Your task to perform on an android device: Clear all items from cart on costco.com. Search for "usb-c" on costco.com, select the first entry, add it to the cart, then select checkout. Image 0: 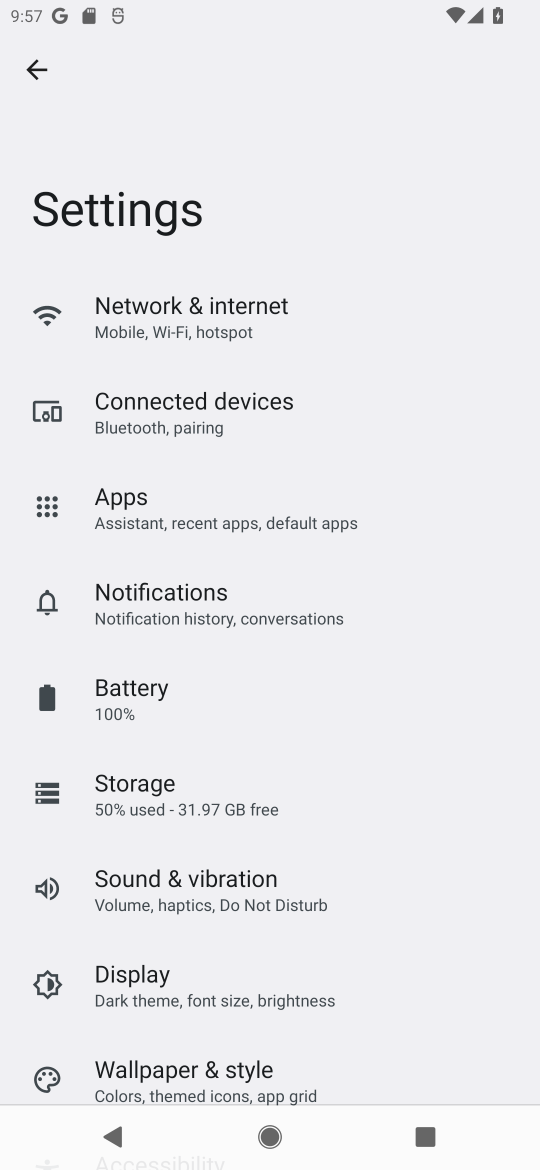
Step 0: press home button
Your task to perform on an android device: Clear all items from cart on costco.com. Search for "usb-c" on costco.com, select the first entry, add it to the cart, then select checkout. Image 1: 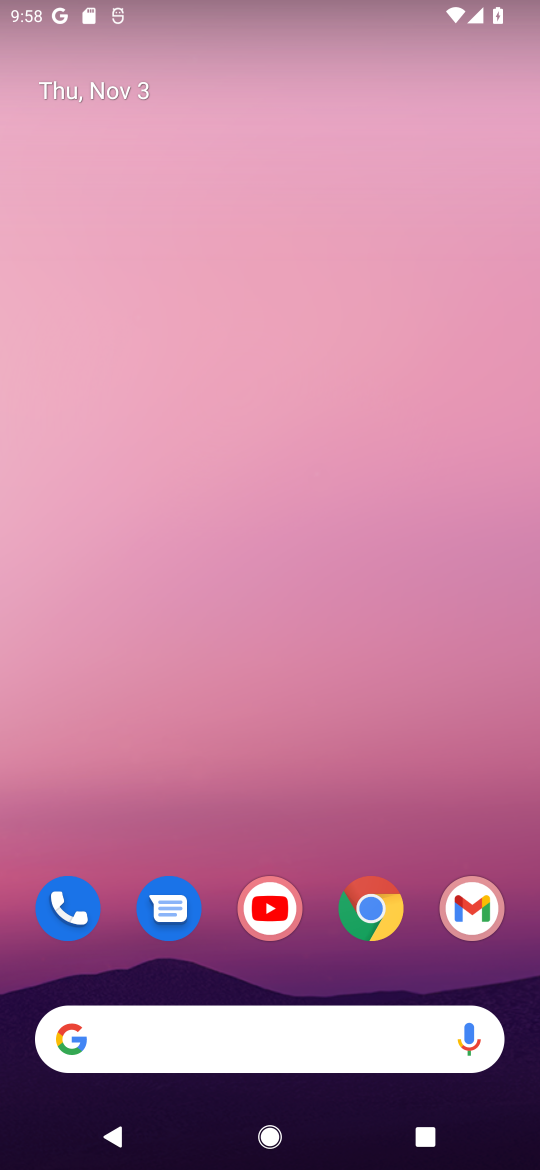
Step 1: click (377, 907)
Your task to perform on an android device: Clear all items from cart on costco.com. Search for "usb-c" on costco.com, select the first entry, add it to the cart, then select checkout. Image 2: 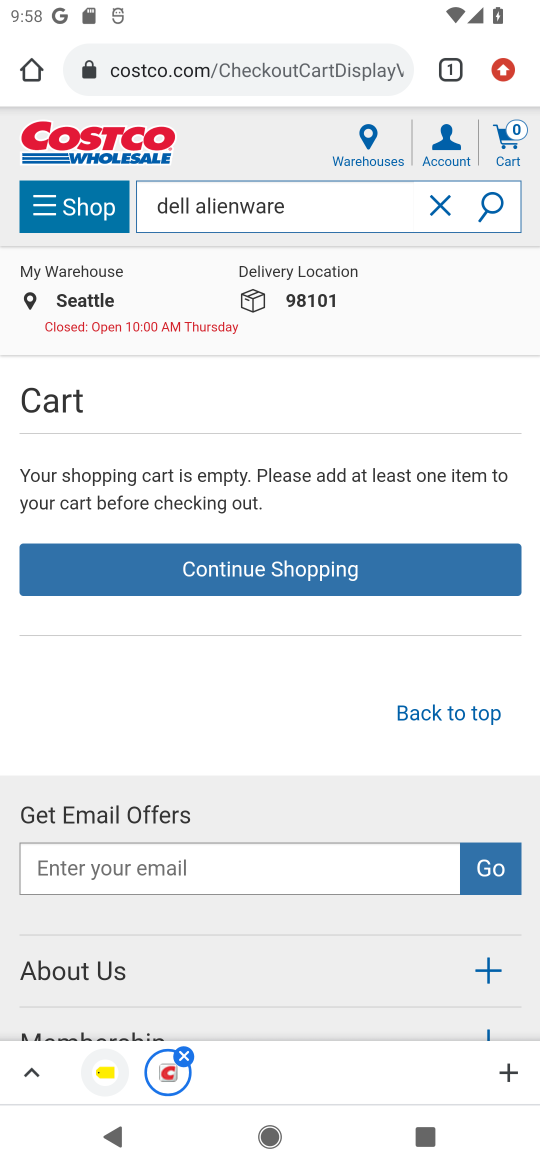
Step 2: click (433, 202)
Your task to perform on an android device: Clear all items from cart on costco.com. Search for "usb-c" on costco.com, select the first entry, add it to the cart, then select checkout. Image 3: 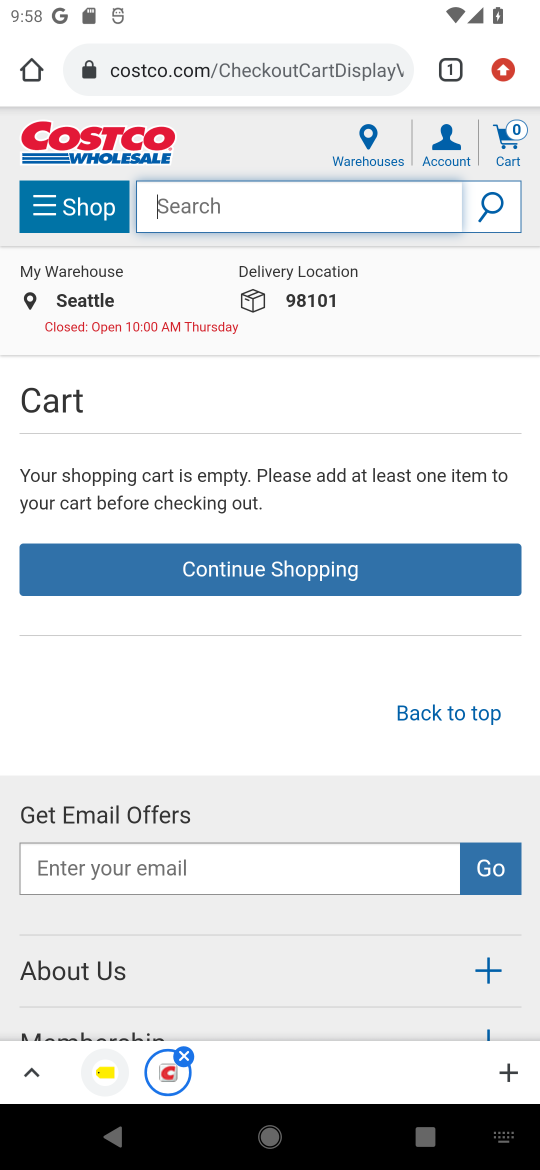
Step 3: type "usb-c"
Your task to perform on an android device: Clear all items from cart on costco.com. Search for "usb-c" on costco.com, select the first entry, add it to the cart, then select checkout. Image 4: 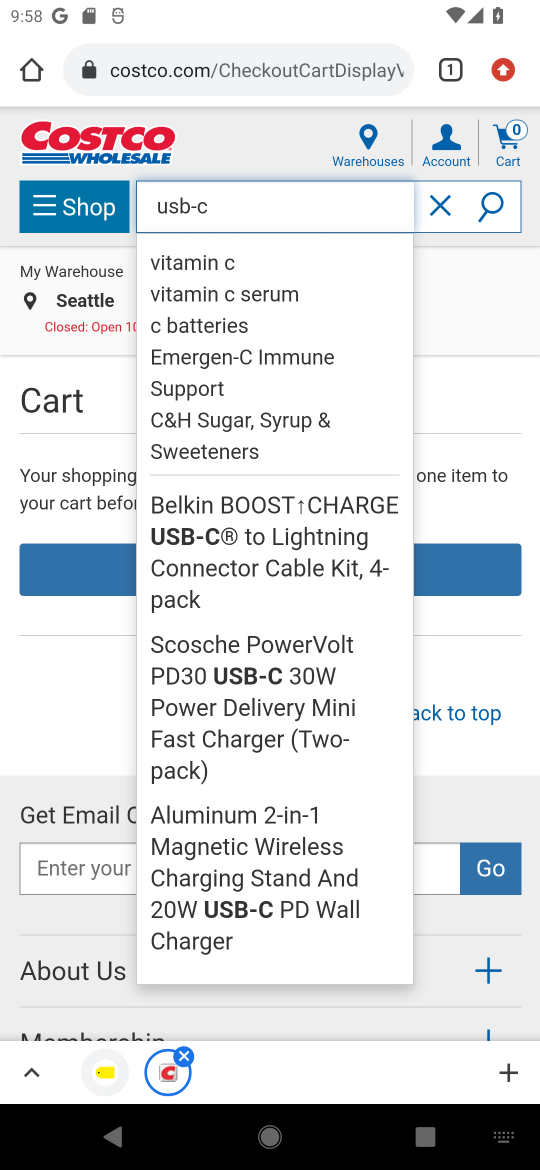
Step 4: click (511, 309)
Your task to perform on an android device: Clear all items from cart on costco.com. Search for "usb-c" on costco.com, select the first entry, add it to the cart, then select checkout. Image 5: 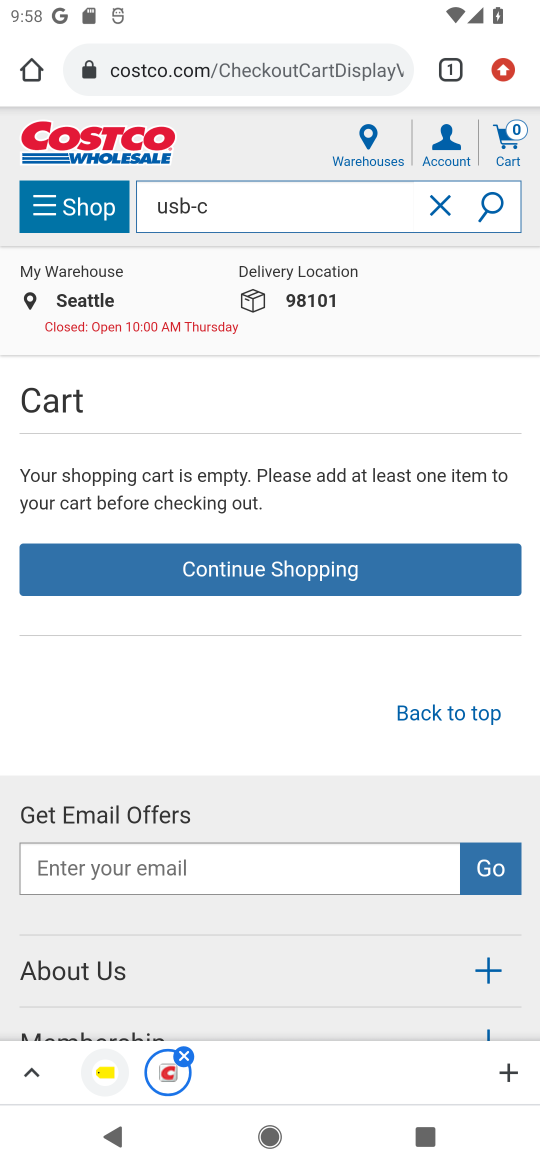
Step 5: click (485, 279)
Your task to perform on an android device: Clear all items from cart on costco.com. Search for "usb-c" on costco.com, select the first entry, add it to the cart, then select checkout. Image 6: 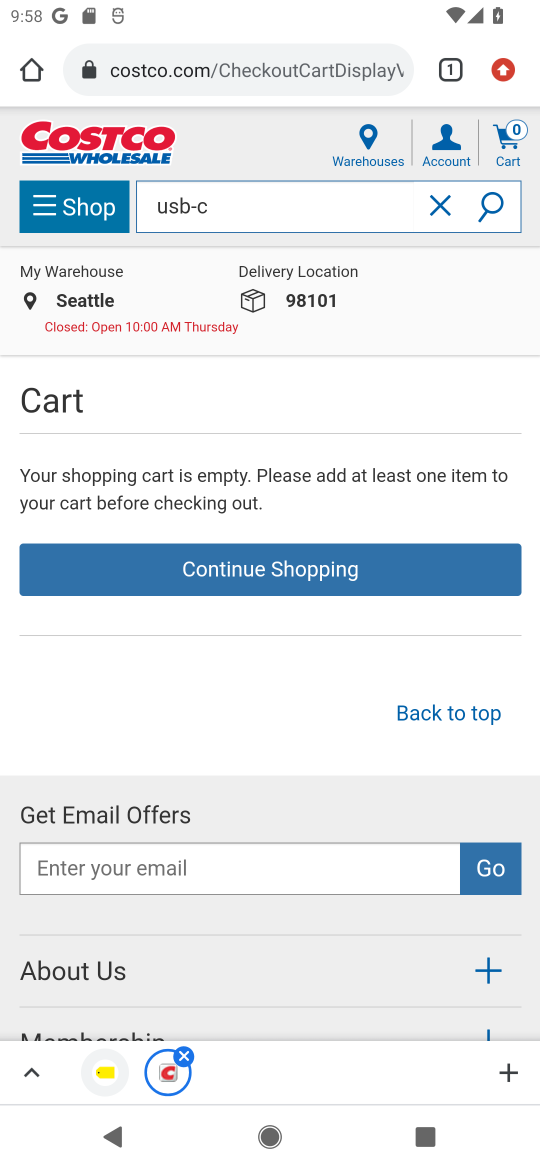
Step 6: task complete